Your task to perform on an android device: Go to internet settings Image 0: 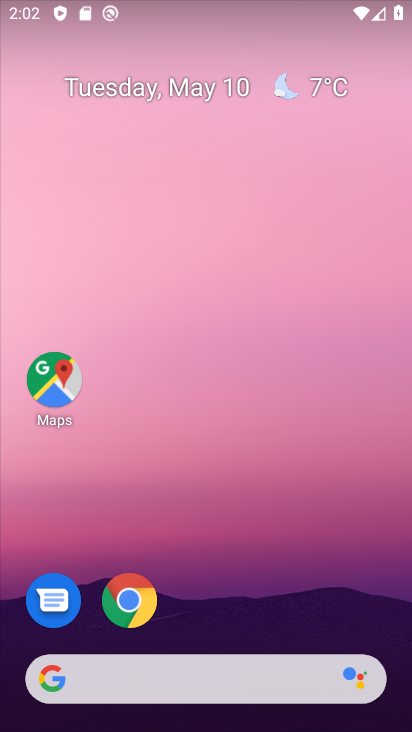
Step 0: drag from (190, 695) to (104, 153)
Your task to perform on an android device: Go to internet settings Image 1: 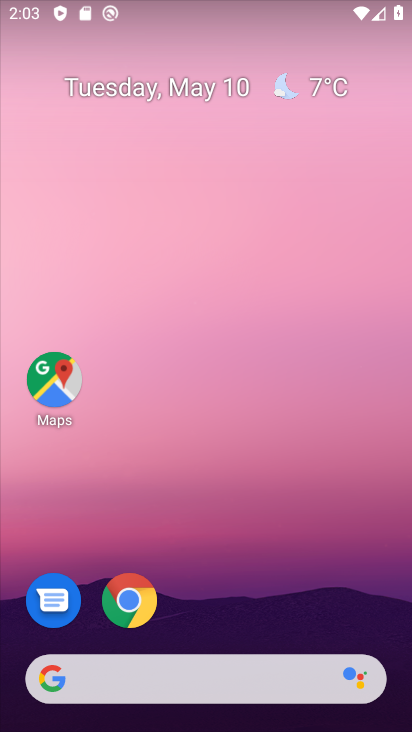
Step 1: drag from (202, 408) to (189, 297)
Your task to perform on an android device: Go to internet settings Image 2: 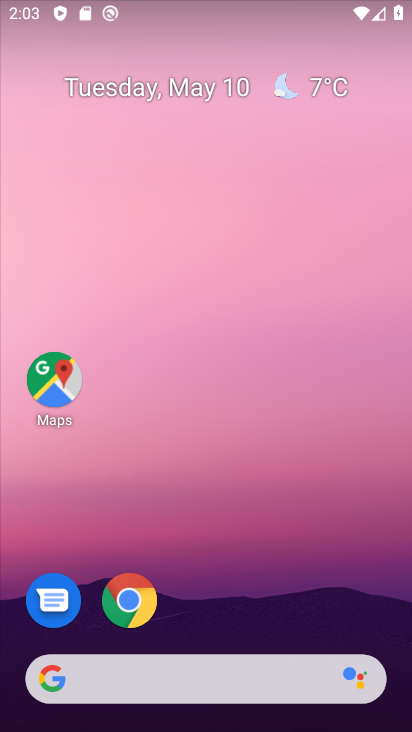
Step 2: click (235, 687)
Your task to perform on an android device: Go to internet settings Image 3: 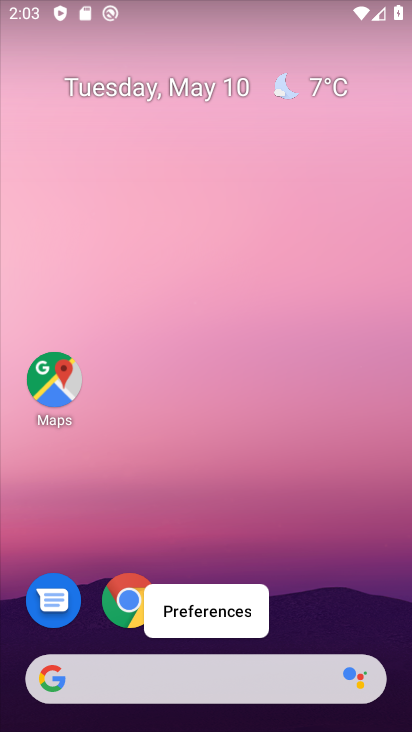
Step 3: drag from (219, 663) to (198, 103)
Your task to perform on an android device: Go to internet settings Image 4: 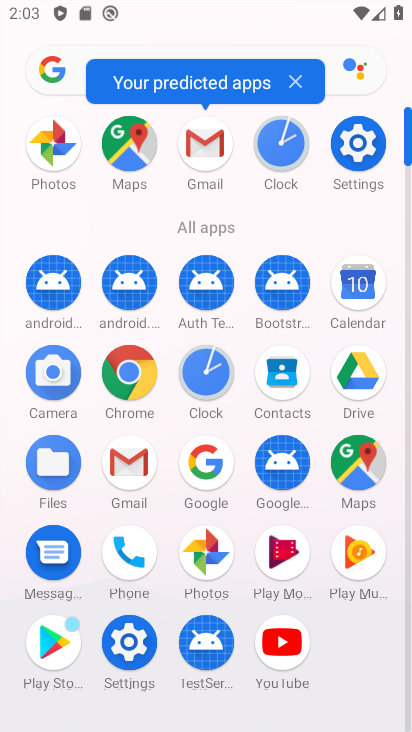
Step 4: click (369, 135)
Your task to perform on an android device: Go to internet settings Image 5: 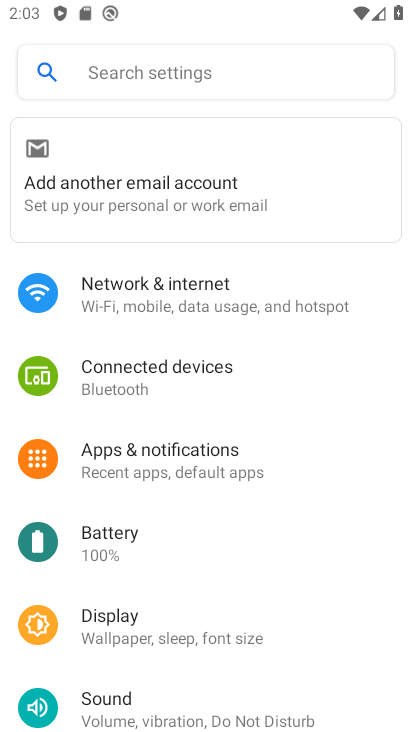
Step 5: click (169, 309)
Your task to perform on an android device: Go to internet settings Image 6: 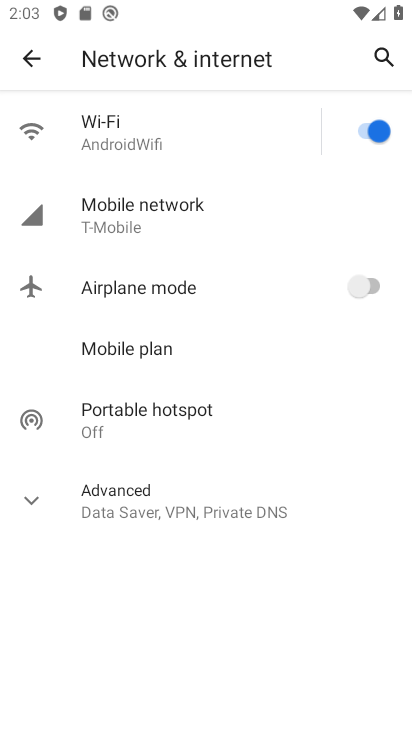
Step 6: task complete